Your task to perform on an android device: Search for seafood restaurants on Google Maps Image 0: 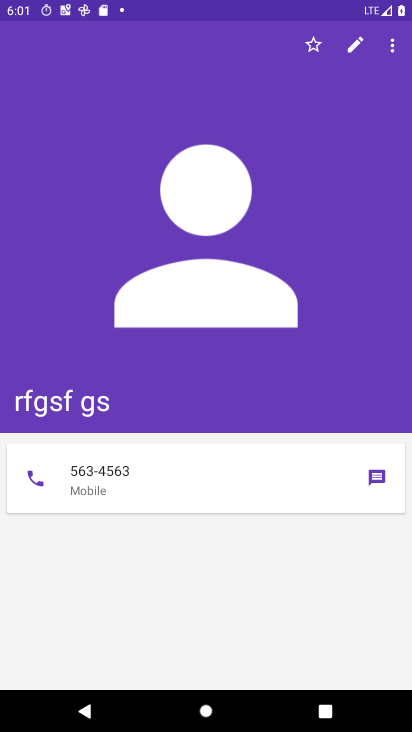
Step 0: press home button
Your task to perform on an android device: Search for seafood restaurants on Google Maps Image 1: 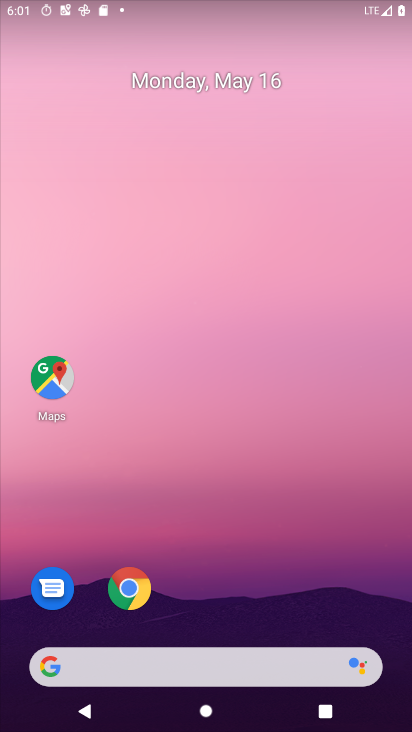
Step 1: click (75, 372)
Your task to perform on an android device: Search for seafood restaurants on Google Maps Image 2: 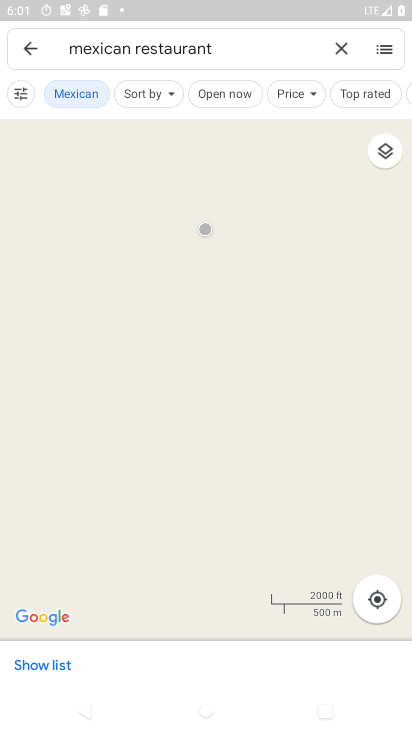
Step 2: click (342, 47)
Your task to perform on an android device: Search for seafood restaurants on Google Maps Image 3: 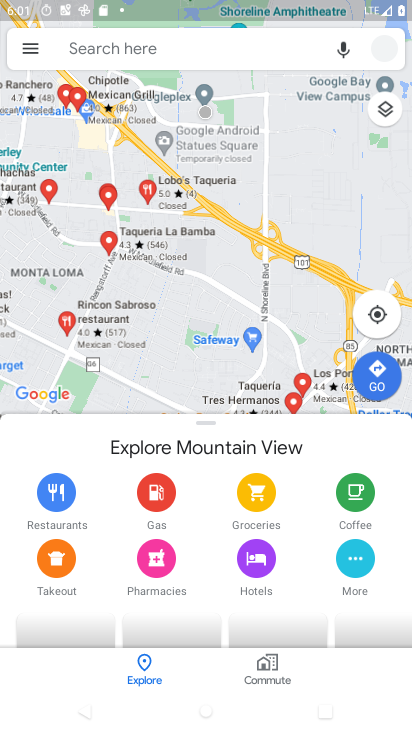
Step 3: click (166, 44)
Your task to perform on an android device: Search for seafood restaurants on Google Maps Image 4: 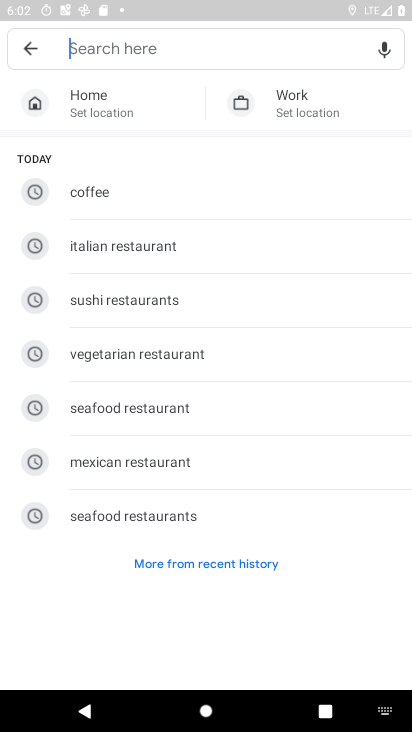
Step 4: click (121, 413)
Your task to perform on an android device: Search for seafood restaurants on Google Maps Image 5: 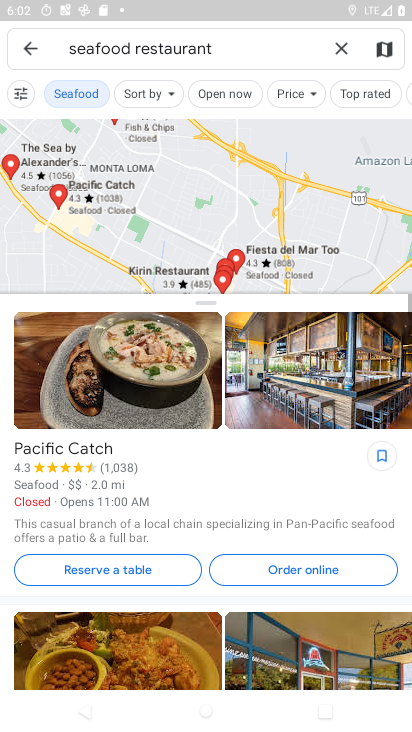
Step 5: task complete